Your task to perform on an android device: delete the emails in spam in the gmail app Image 0: 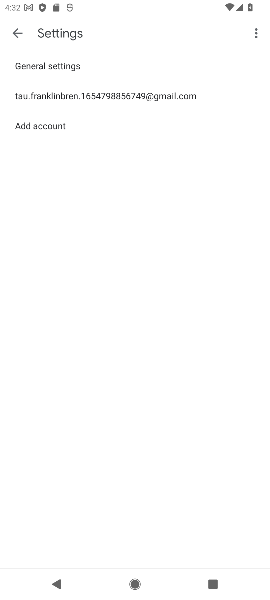
Step 0: press home button
Your task to perform on an android device: delete the emails in spam in the gmail app Image 1: 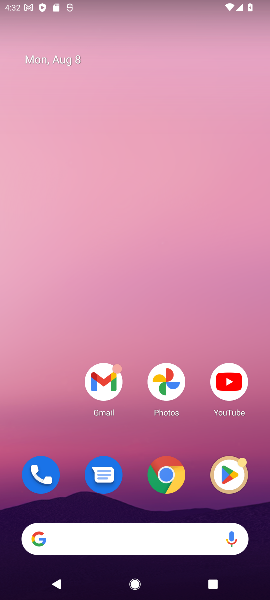
Step 1: drag from (46, 425) to (48, 110)
Your task to perform on an android device: delete the emails in spam in the gmail app Image 2: 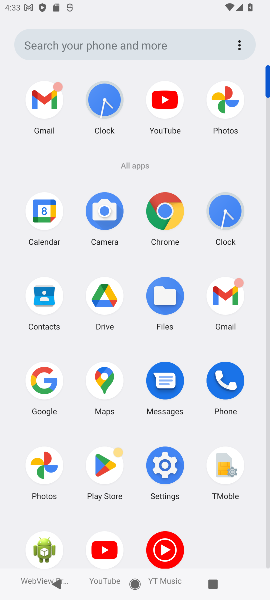
Step 2: click (222, 297)
Your task to perform on an android device: delete the emails in spam in the gmail app Image 3: 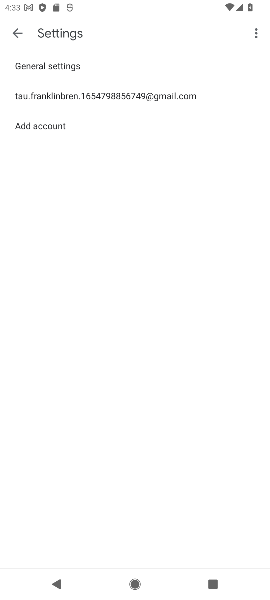
Step 3: press back button
Your task to perform on an android device: delete the emails in spam in the gmail app Image 4: 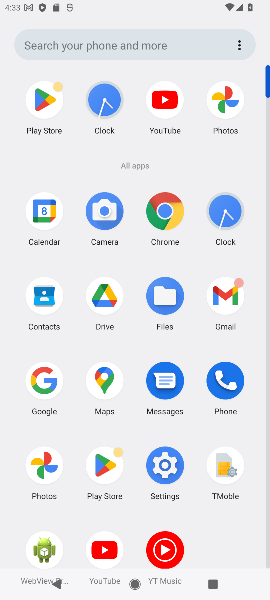
Step 4: click (230, 290)
Your task to perform on an android device: delete the emails in spam in the gmail app Image 5: 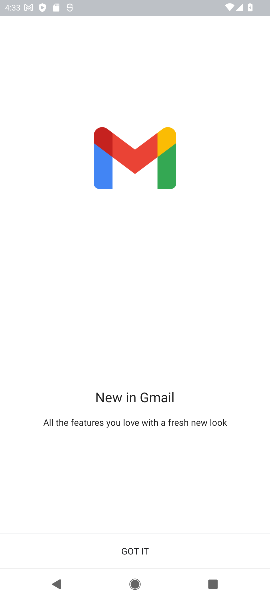
Step 5: click (140, 547)
Your task to perform on an android device: delete the emails in spam in the gmail app Image 6: 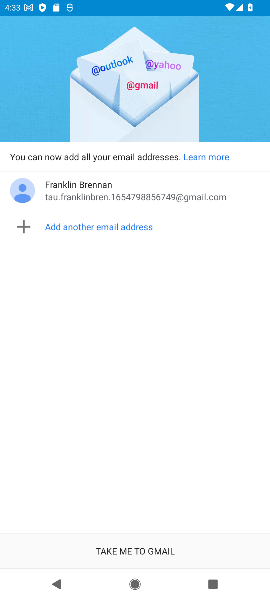
Step 6: click (140, 547)
Your task to perform on an android device: delete the emails in spam in the gmail app Image 7: 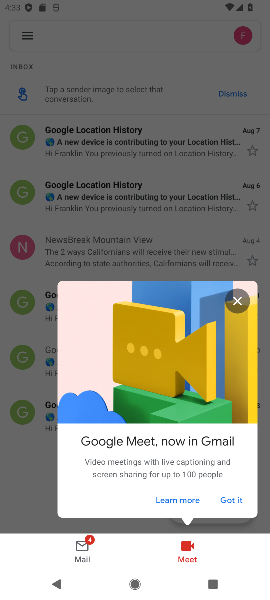
Step 7: click (231, 494)
Your task to perform on an android device: delete the emails in spam in the gmail app Image 8: 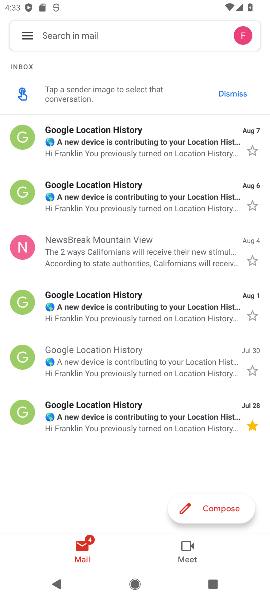
Step 8: click (29, 35)
Your task to perform on an android device: delete the emails in spam in the gmail app Image 9: 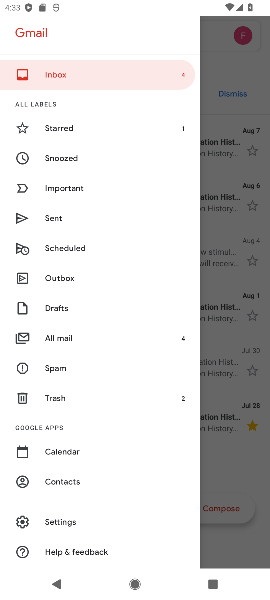
Step 9: click (71, 369)
Your task to perform on an android device: delete the emails in spam in the gmail app Image 10: 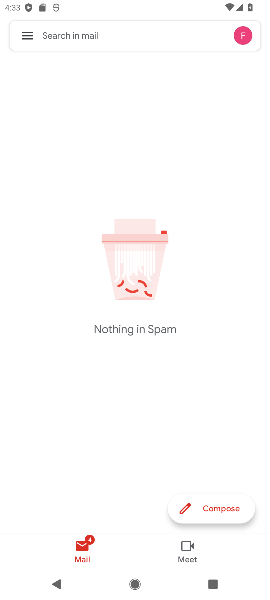
Step 10: task complete